Your task to perform on an android device: Do I have any events today? Image 0: 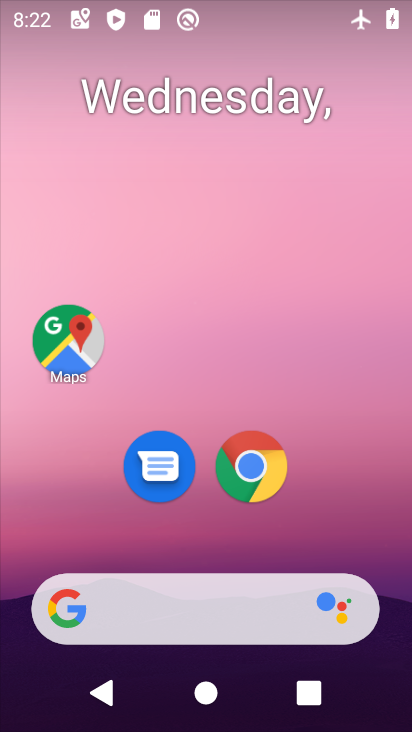
Step 0: drag from (336, 527) to (395, 44)
Your task to perform on an android device: Do I have any events today? Image 1: 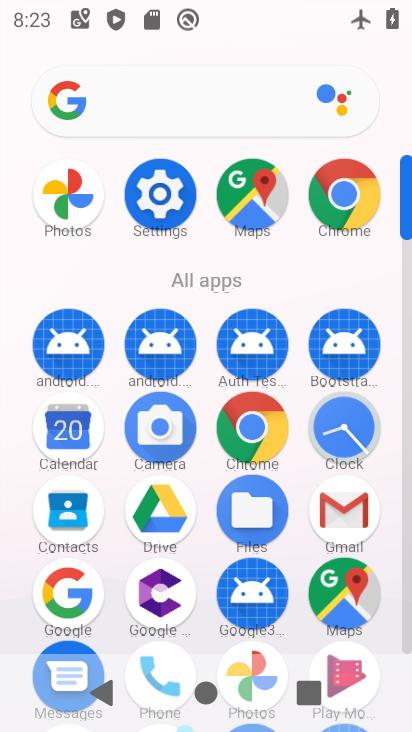
Step 1: click (55, 438)
Your task to perform on an android device: Do I have any events today? Image 2: 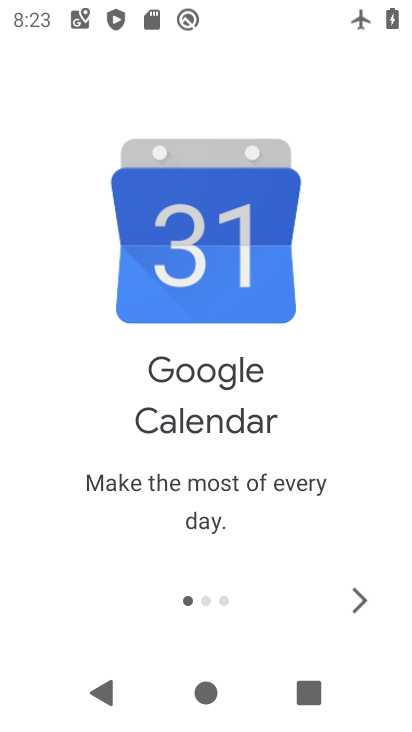
Step 2: click (368, 593)
Your task to perform on an android device: Do I have any events today? Image 3: 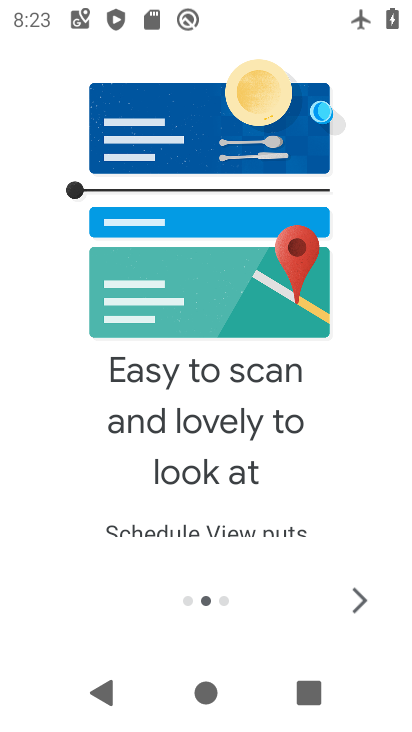
Step 3: click (354, 605)
Your task to perform on an android device: Do I have any events today? Image 4: 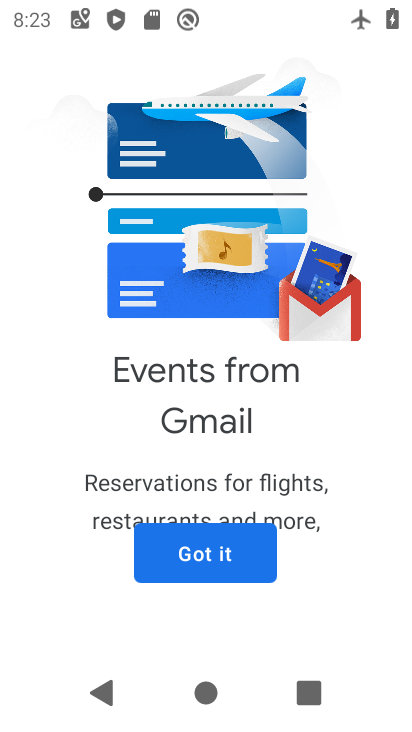
Step 4: click (244, 562)
Your task to perform on an android device: Do I have any events today? Image 5: 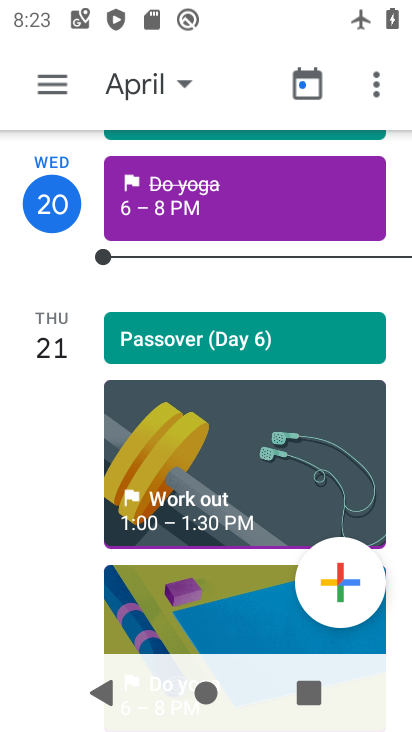
Step 5: click (123, 90)
Your task to perform on an android device: Do I have any events today? Image 6: 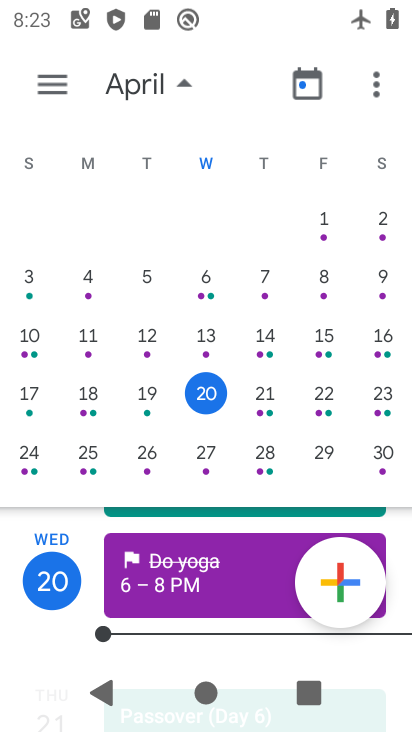
Step 6: click (204, 400)
Your task to perform on an android device: Do I have any events today? Image 7: 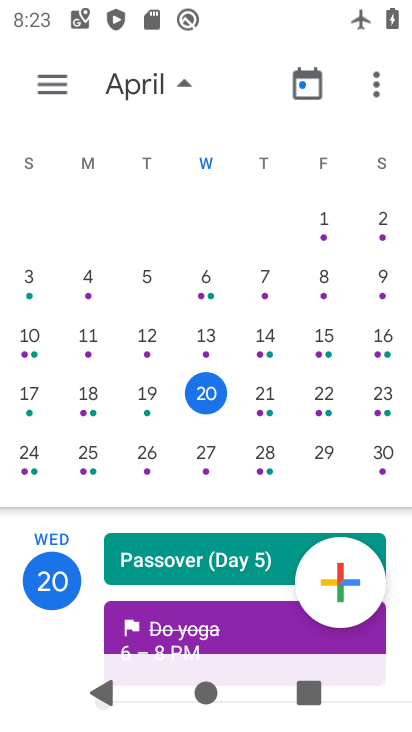
Step 7: task complete